Your task to perform on an android device: Open Google Image 0: 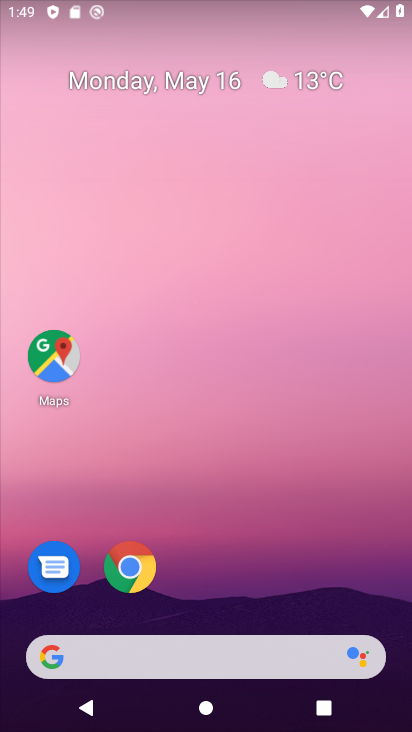
Step 0: click (44, 651)
Your task to perform on an android device: Open Google Image 1: 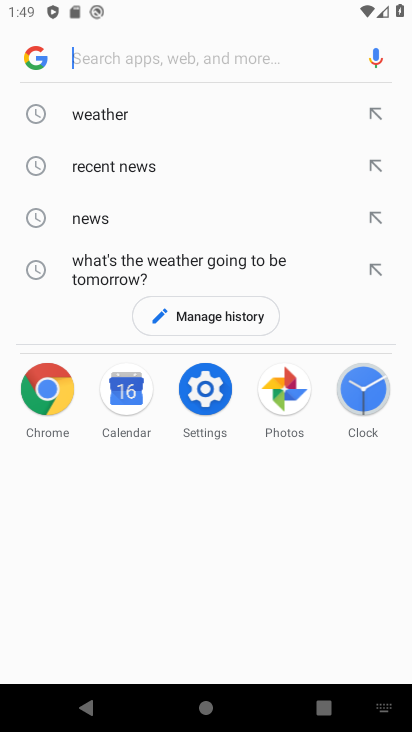
Step 1: click (38, 63)
Your task to perform on an android device: Open Google Image 2: 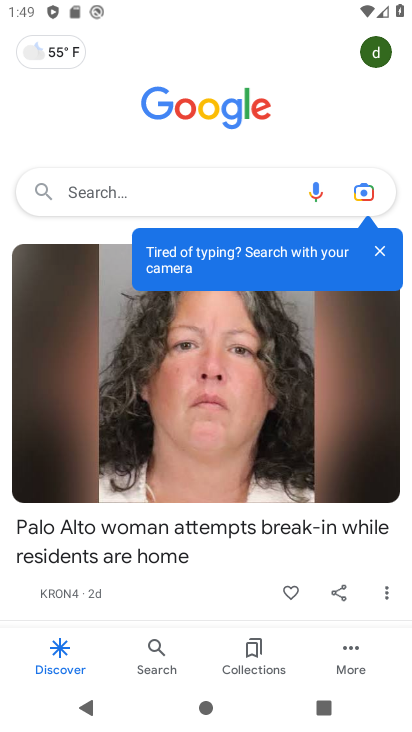
Step 2: task complete